Your task to perform on an android device: Search for Italian restaurants on Maps Image 0: 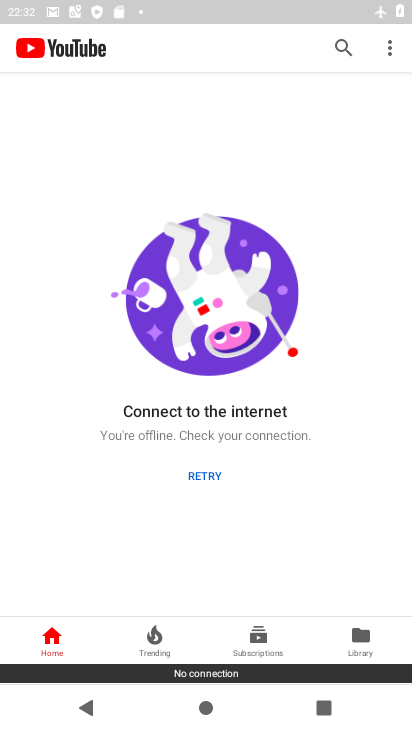
Step 0: press home button
Your task to perform on an android device: Search for Italian restaurants on Maps Image 1: 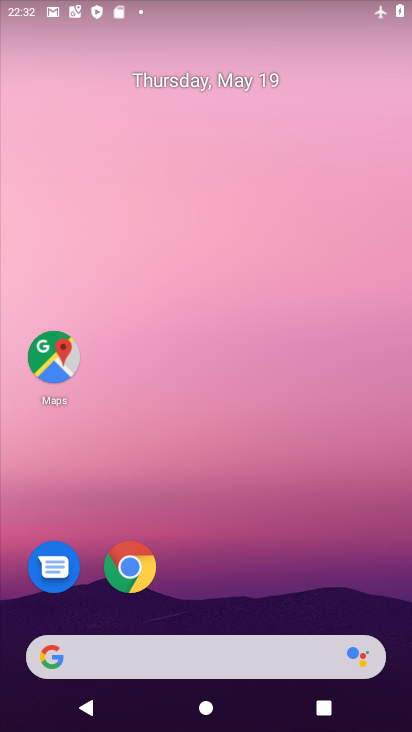
Step 1: click (47, 341)
Your task to perform on an android device: Search for Italian restaurants on Maps Image 2: 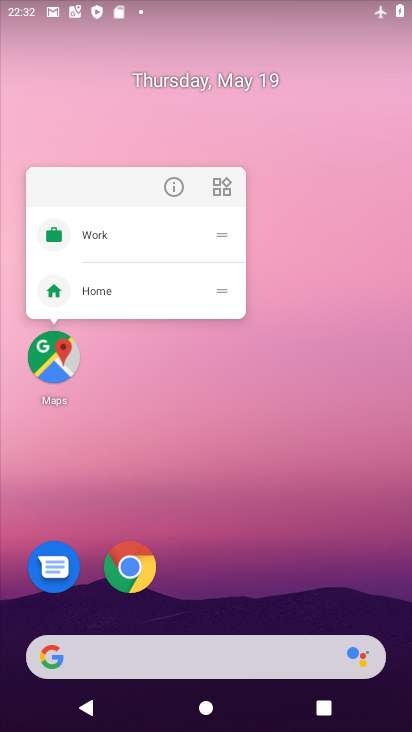
Step 2: click (58, 346)
Your task to perform on an android device: Search for Italian restaurants on Maps Image 3: 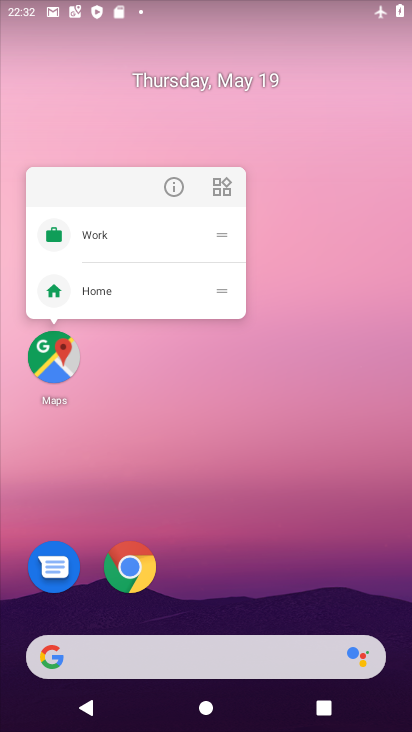
Step 3: click (49, 348)
Your task to perform on an android device: Search for Italian restaurants on Maps Image 4: 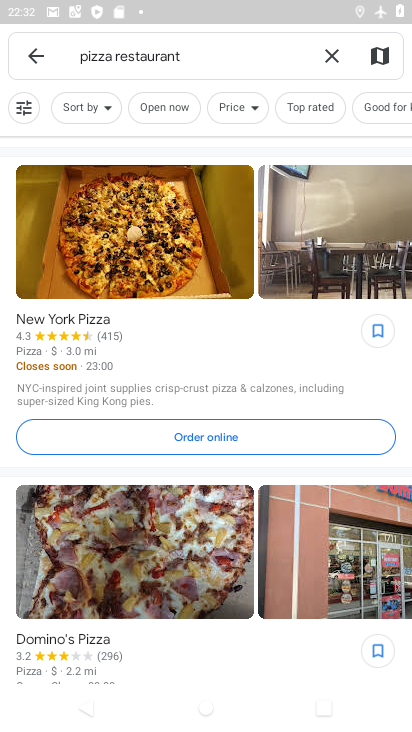
Step 4: click (330, 56)
Your task to perform on an android device: Search for Italian restaurants on Maps Image 5: 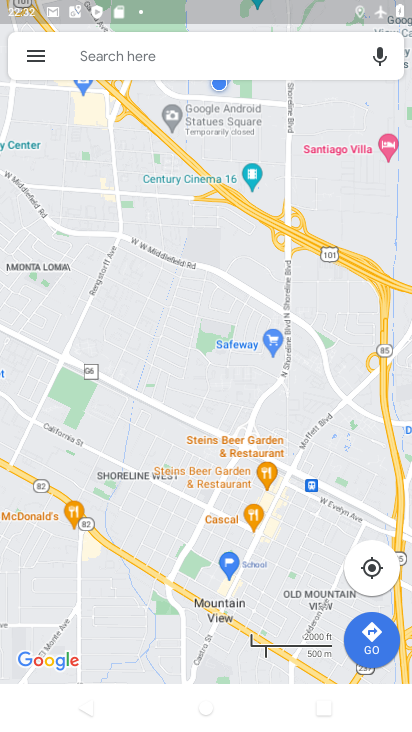
Step 5: click (134, 54)
Your task to perform on an android device: Search for Italian restaurants on Maps Image 6: 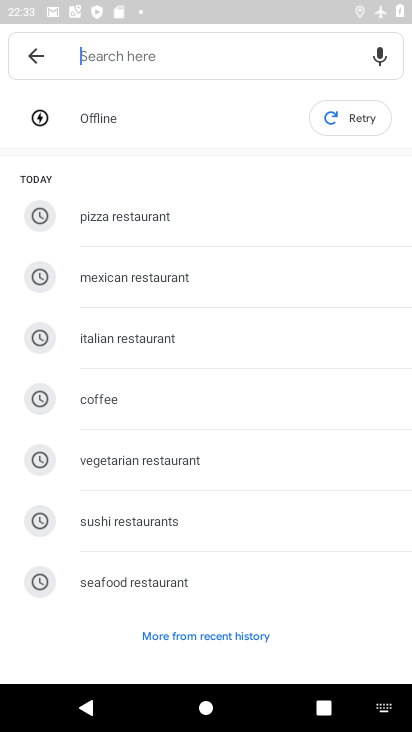
Step 6: type "italian"
Your task to perform on an android device: Search for Italian restaurants on Maps Image 7: 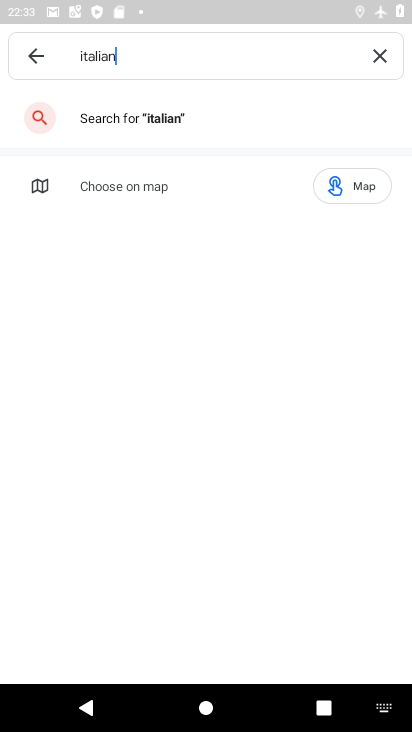
Step 7: click (379, 60)
Your task to perform on an android device: Search for Italian restaurants on Maps Image 8: 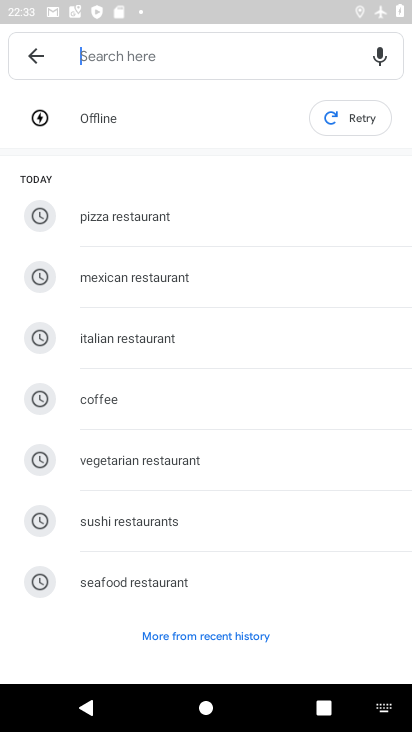
Step 8: click (178, 337)
Your task to perform on an android device: Search for Italian restaurants on Maps Image 9: 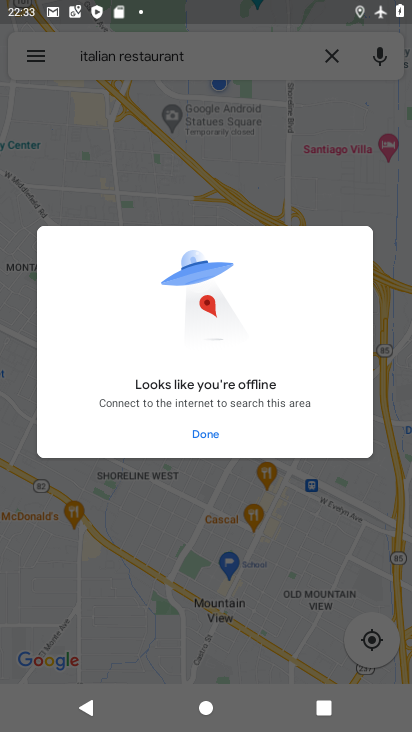
Step 9: task complete